Your task to perform on an android device: Go to Android settings Image 0: 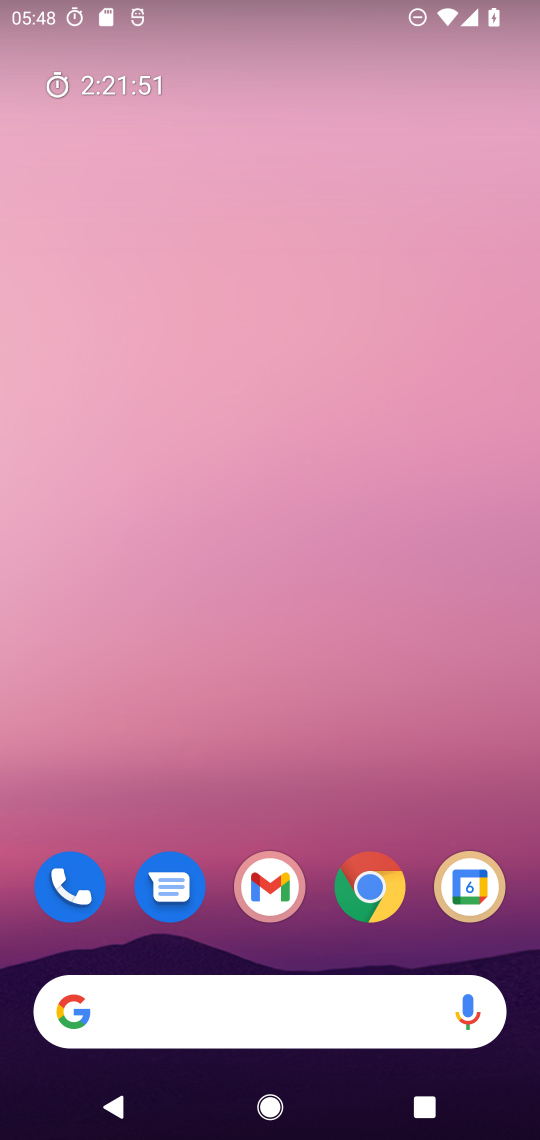
Step 0: press home button
Your task to perform on an android device: Go to Android settings Image 1: 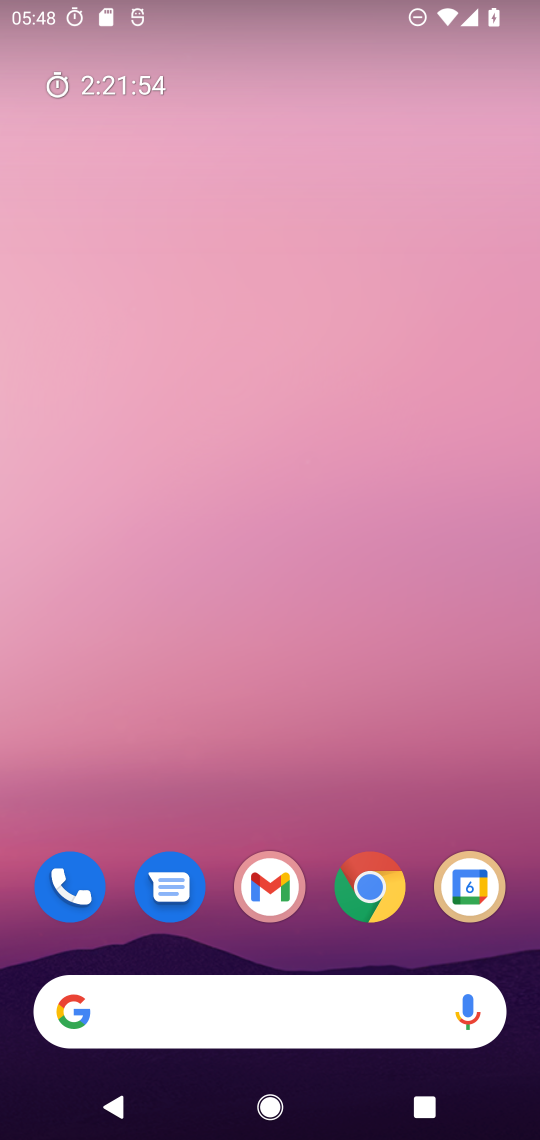
Step 1: drag from (414, 768) to (390, 297)
Your task to perform on an android device: Go to Android settings Image 2: 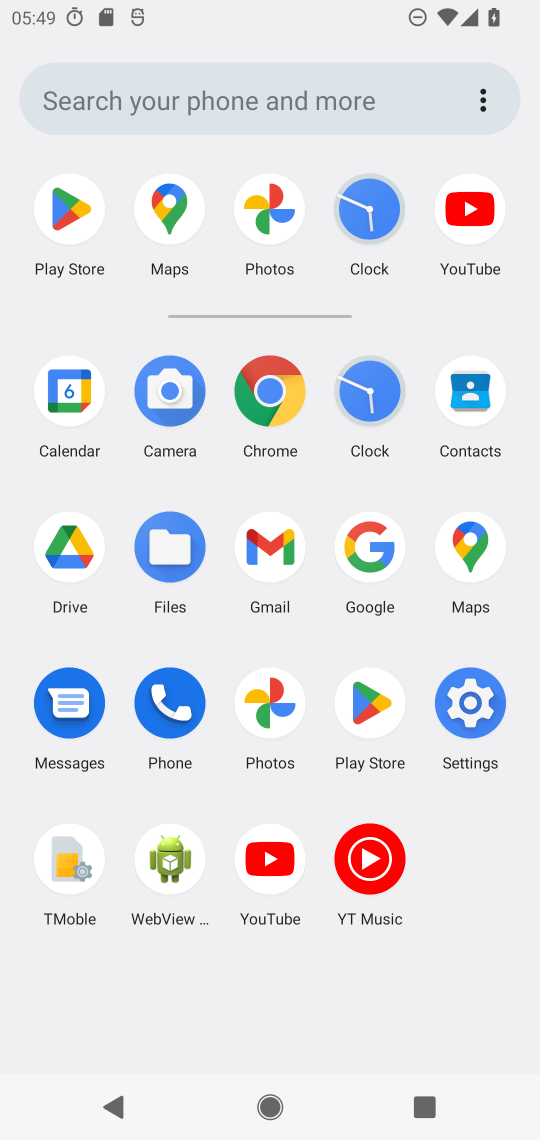
Step 2: click (463, 703)
Your task to perform on an android device: Go to Android settings Image 3: 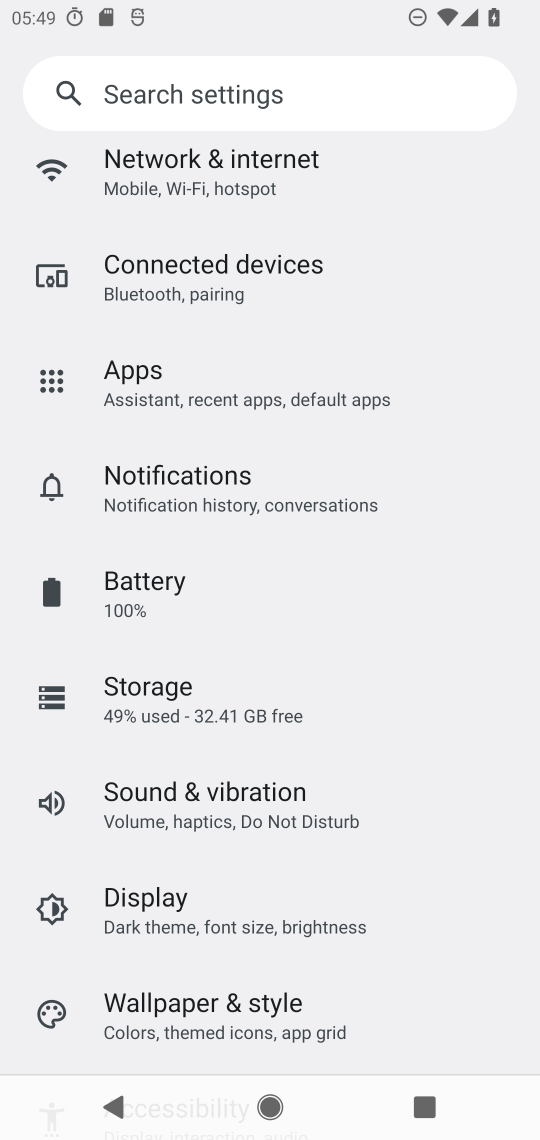
Step 3: drag from (432, 405) to (436, 564)
Your task to perform on an android device: Go to Android settings Image 4: 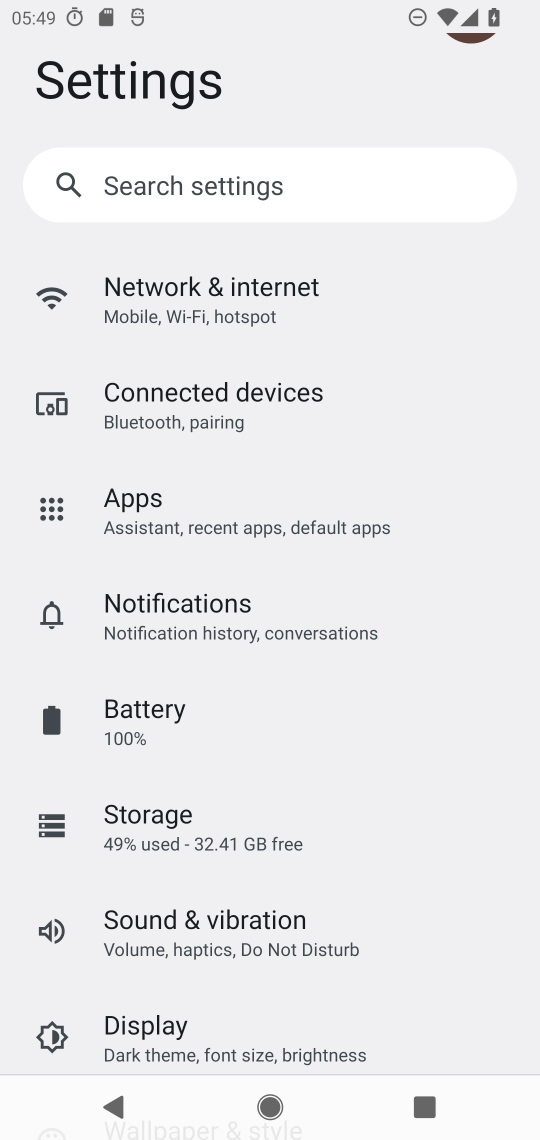
Step 4: drag from (438, 384) to (458, 699)
Your task to perform on an android device: Go to Android settings Image 5: 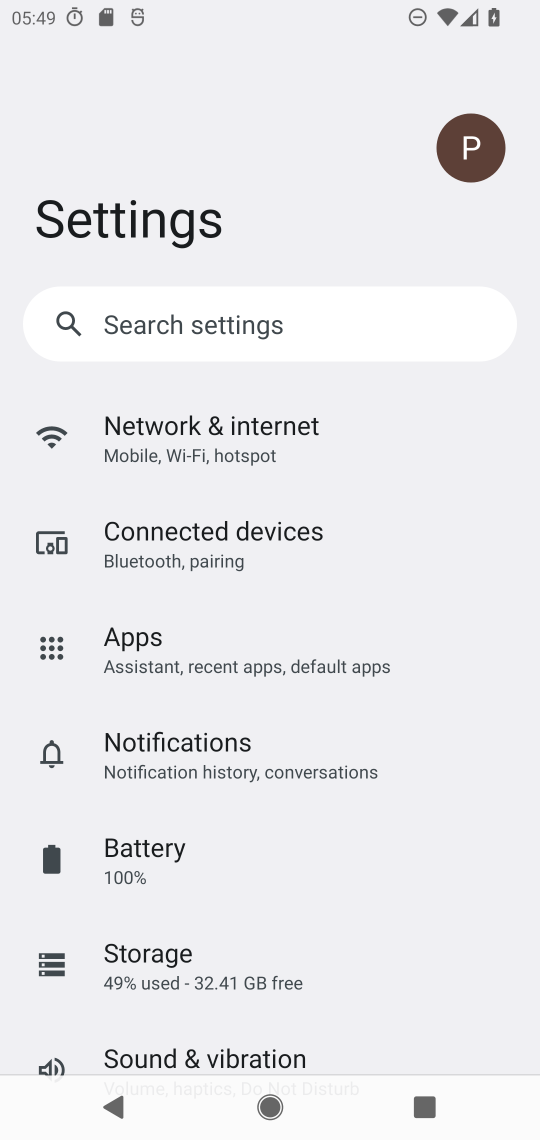
Step 5: drag from (461, 743) to (471, 577)
Your task to perform on an android device: Go to Android settings Image 6: 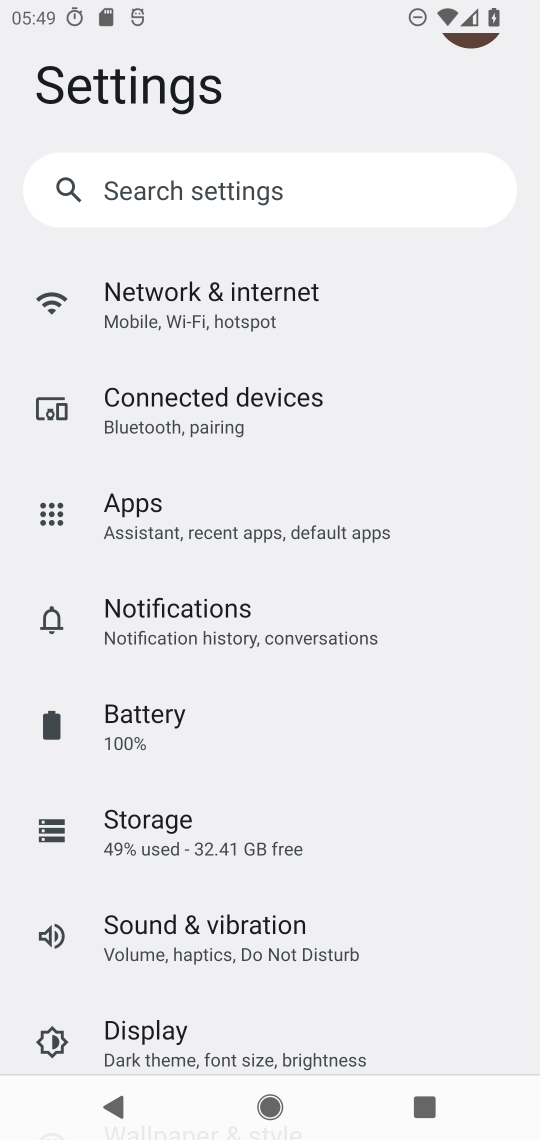
Step 6: drag from (451, 774) to (475, 612)
Your task to perform on an android device: Go to Android settings Image 7: 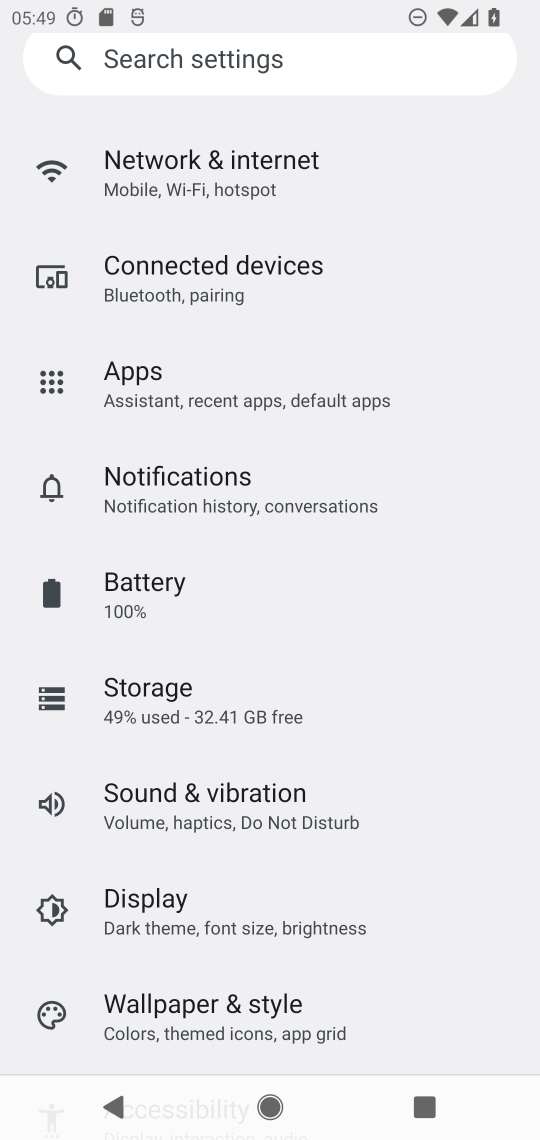
Step 7: drag from (435, 800) to (448, 616)
Your task to perform on an android device: Go to Android settings Image 8: 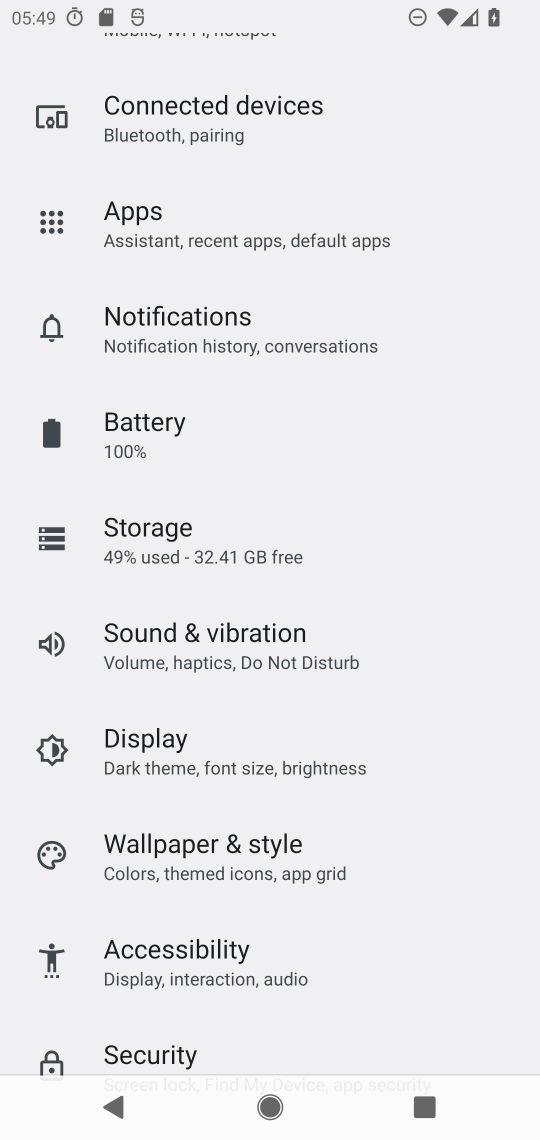
Step 8: drag from (452, 745) to (457, 603)
Your task to perform on an android device: Go to Android settings Image 9: 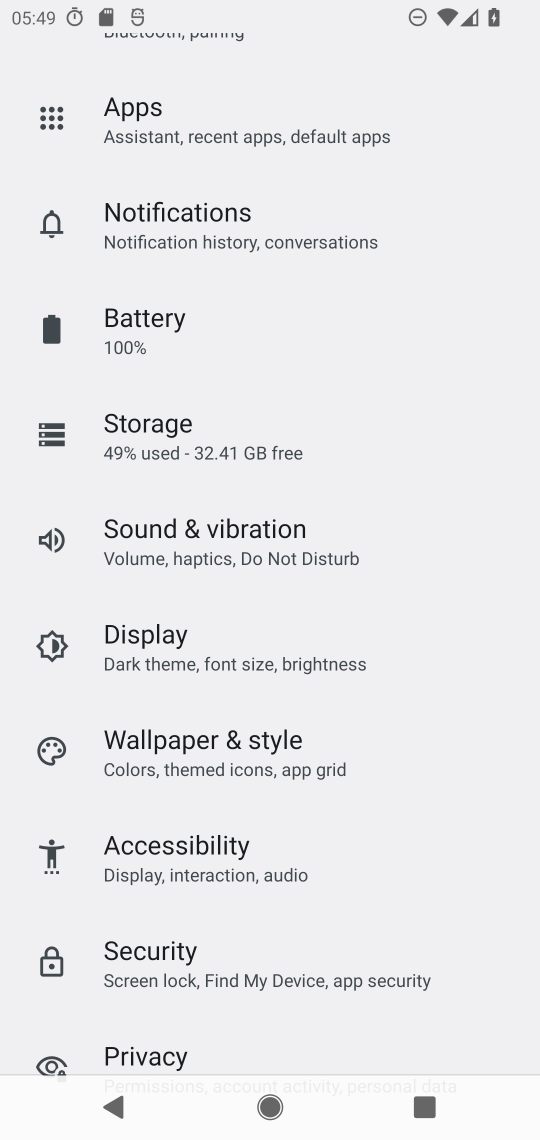
Step 9: drag from (430, 788) to (454, 631)
Your task to perform on an android device: Go to Android settings Image 10: 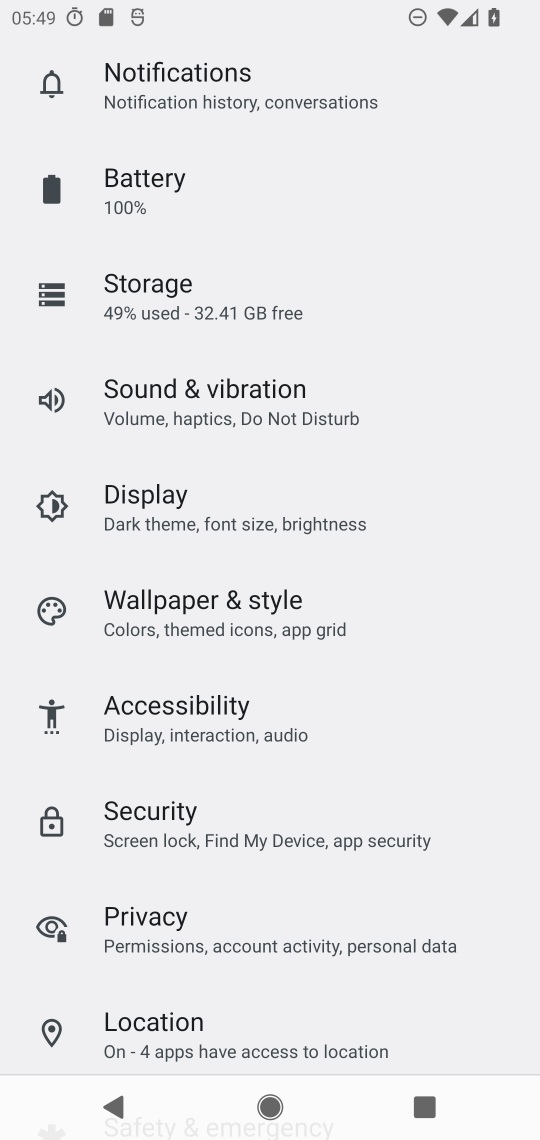
Step 10: drag from (427, 784) to (431, 658)
Your task to perform on an android device: Go to Android settings Image 11: 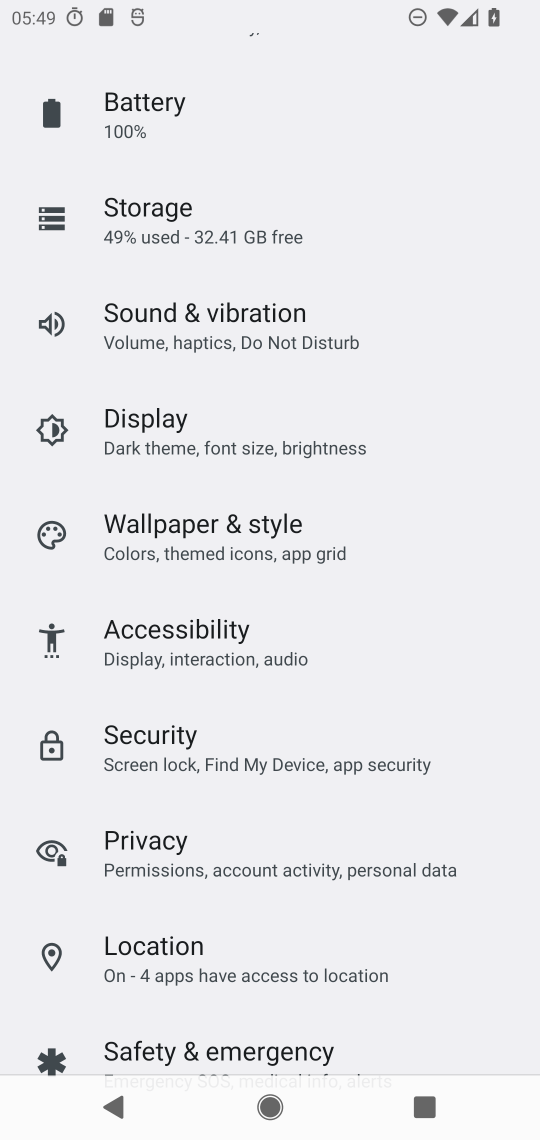
Step 11: drag from (424, 854) to (444, 681)
Your task to perform on an android device: Go to Android settings Image 12: 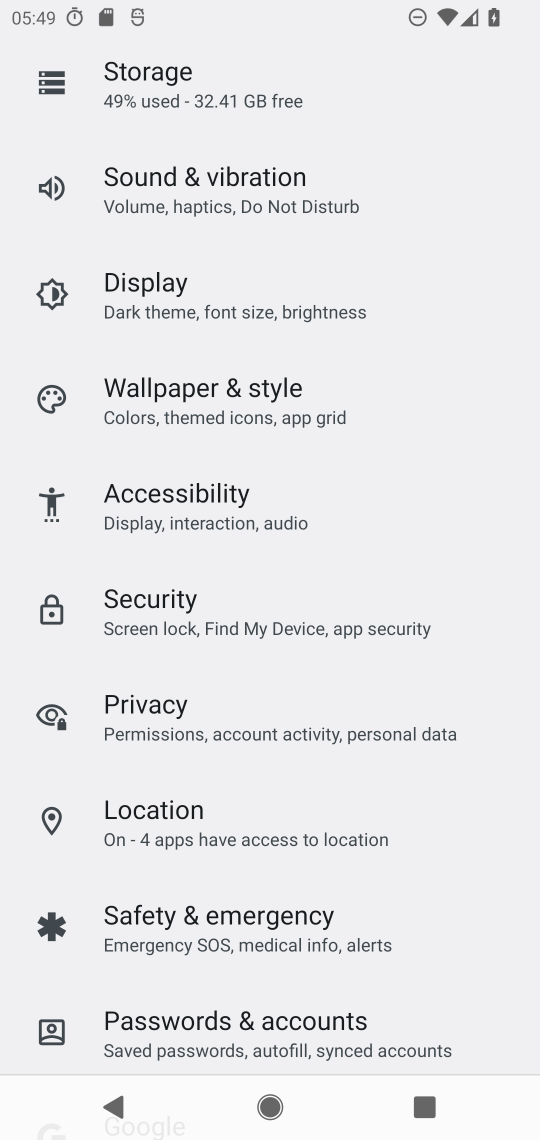
Step 12: drag from (432, 870) to (456, 664)
Your task to perform on an android device: Go to Android settings Image 13: 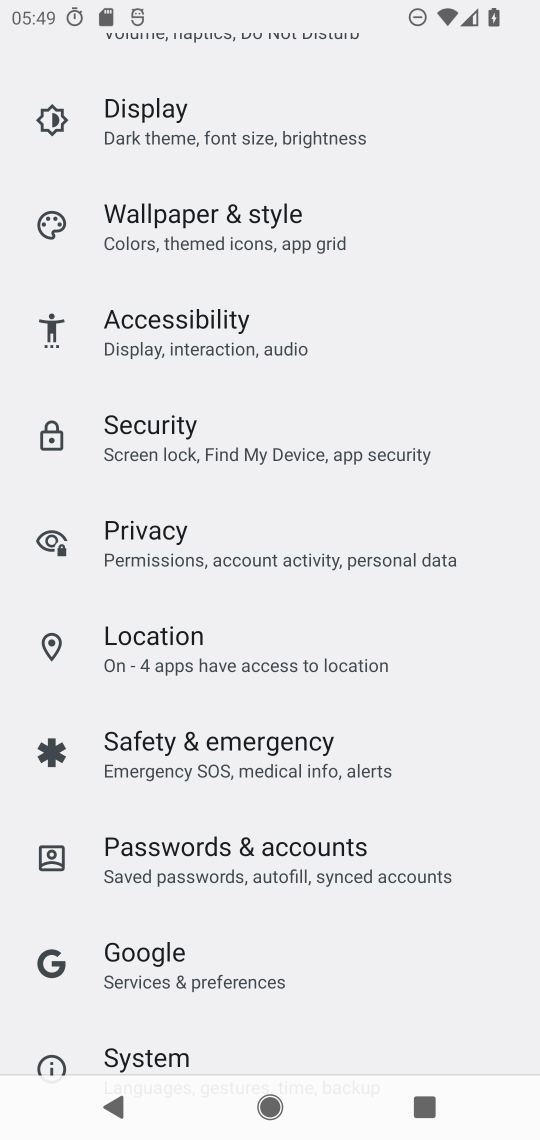
Step 13: drag from (425, 969) to (464, 689)
Your task to perform on an android device: Go to Android settings Image 14: 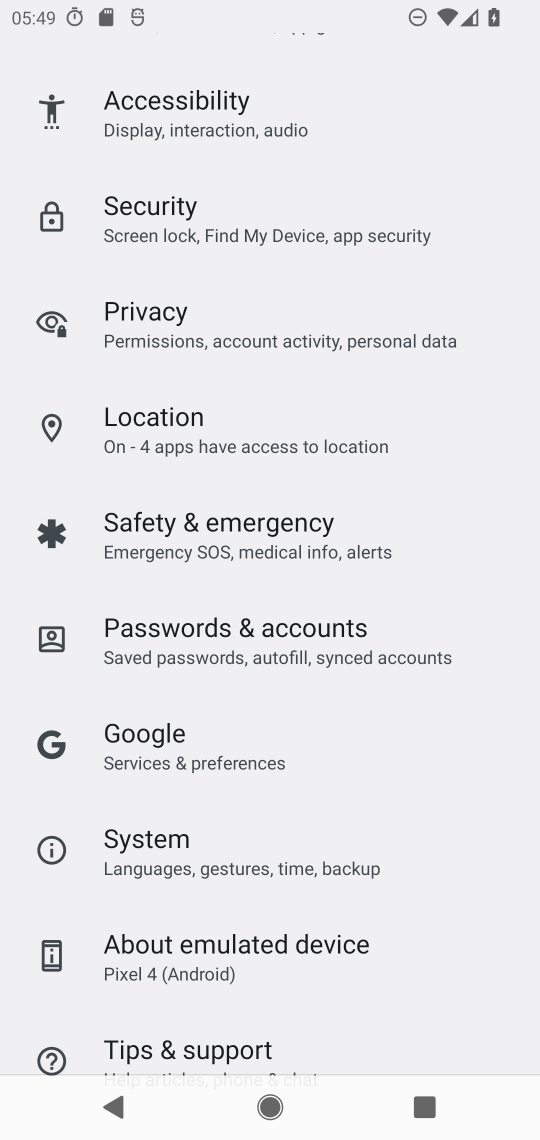
Step 14: click (387, 862)
Your task to perform on an android device: Go to Android settings Image 15: 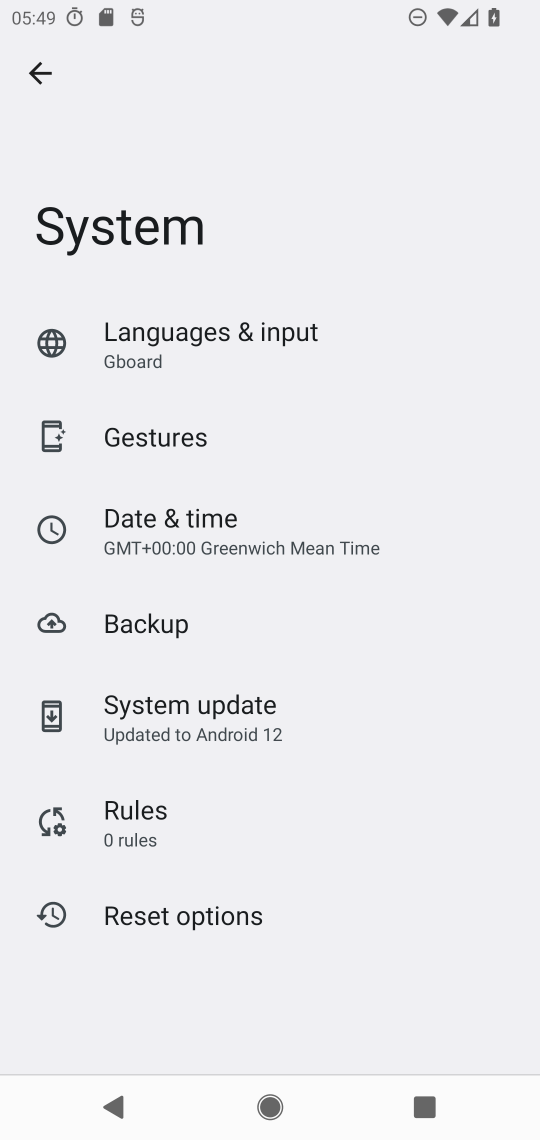
Step 15: task complete